Your task to perform on an android device: toggle sleep mode Image 0: 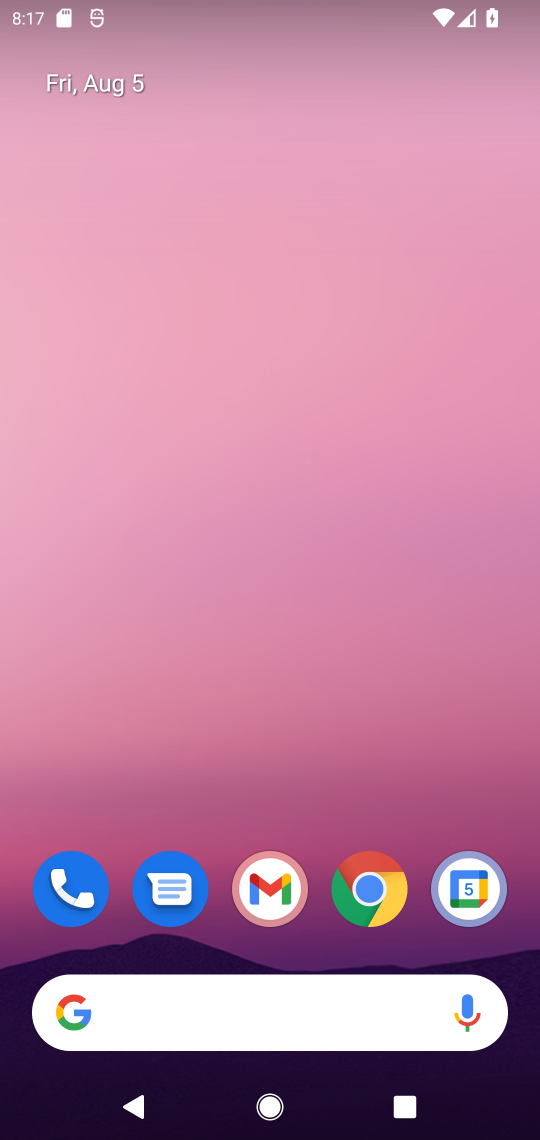
Step 0: drag from (227, 953) to (233, 304)
Your task to perform on an android device: toggle sleep mode Image 1: 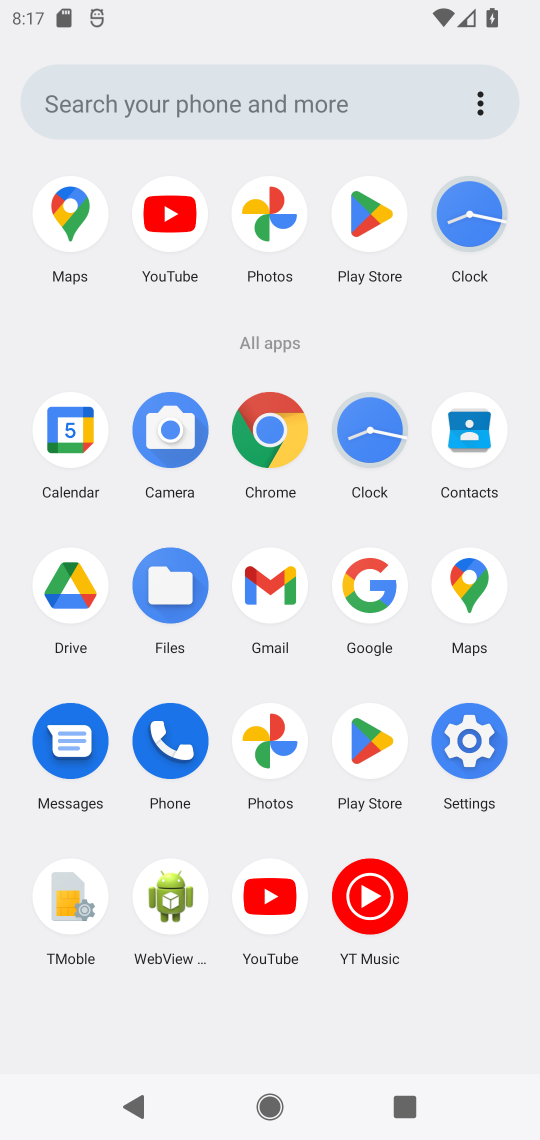
Step 1: click (455, 719)
Your task to perform on an android device: toggle sleep mode Image 2: 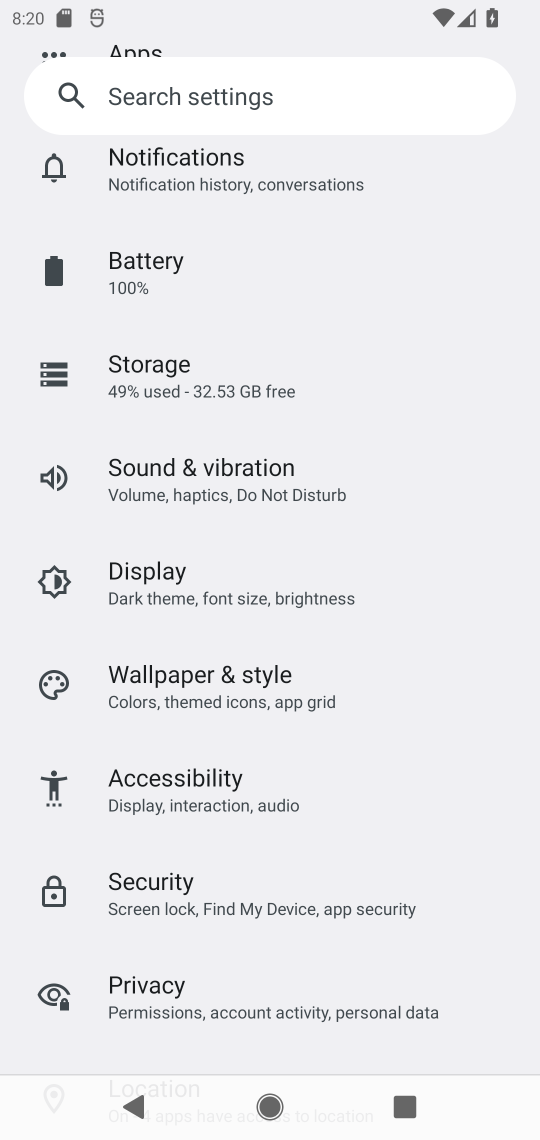
Step 2: task complete